Your task to perform on an android device: open a bookmark in the chrome app Image 0: 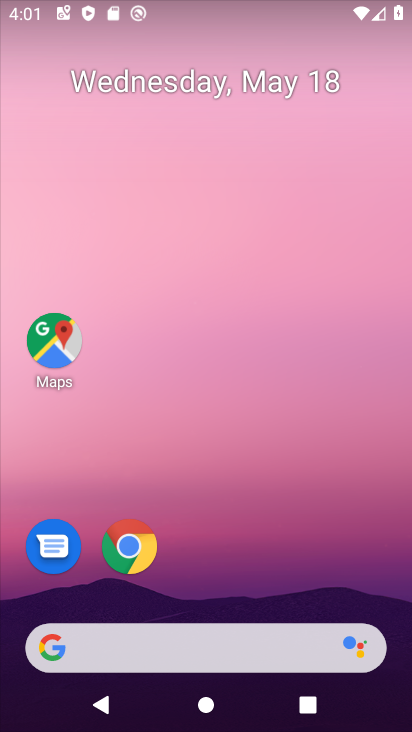
Step 0: click (141, 544)
Your task to perform on an android device: open a bookmark in the chrome app Image 1: 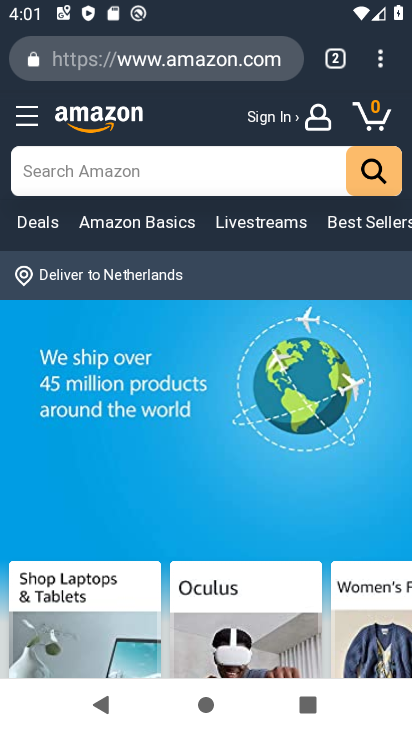
Step 1: click (377, 64)
Your task to perform on an android device: open a bookmark in the chrome app Image 2: 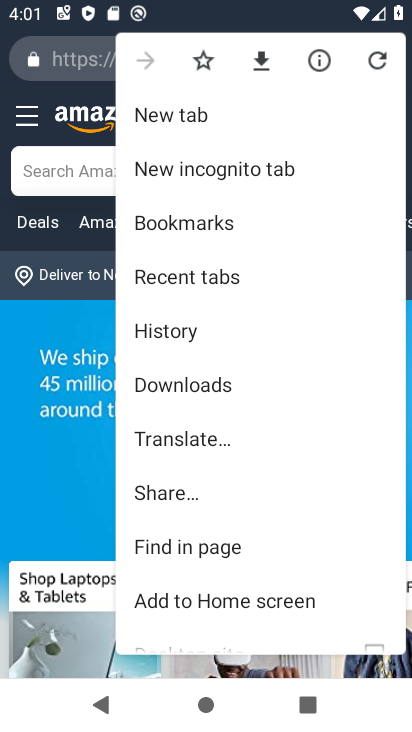
Step 2: click (222, 232)
Your task to perform on an android device: open a bookmark in the chrome app Image 3: 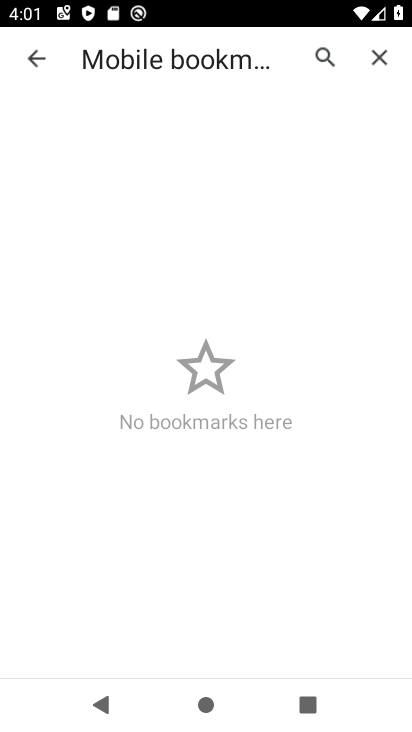
Step 3: task complete